Your task to perform on an android device: Go to CNN.com Image 0: 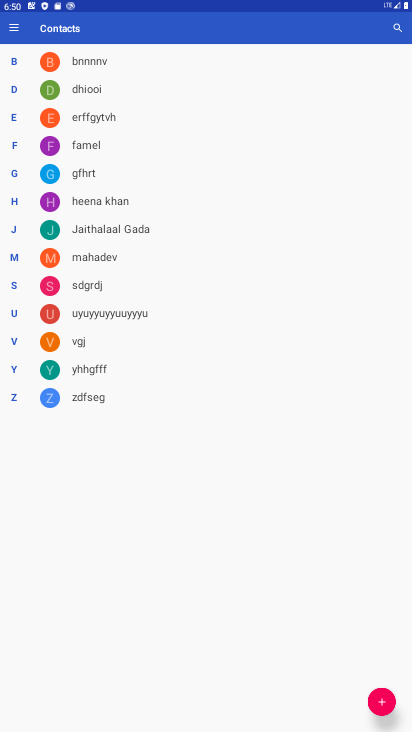
Step 0: press home button
Your task to perform on an android device: Go to CNN.com Image 1: 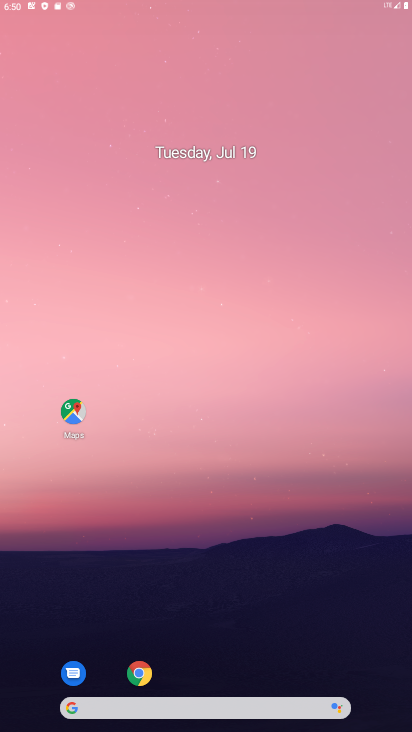
Step 1: drag from (381, 651) to (237, 8)
Your task to perform on an android device: Go to CNN.com Image 2: 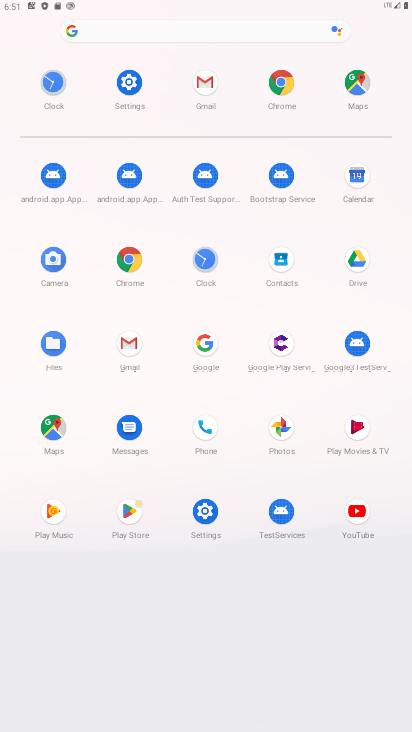
Step 2: click (199, 352)
Your task to perform on an android device: Go to CNN.com Image 3: 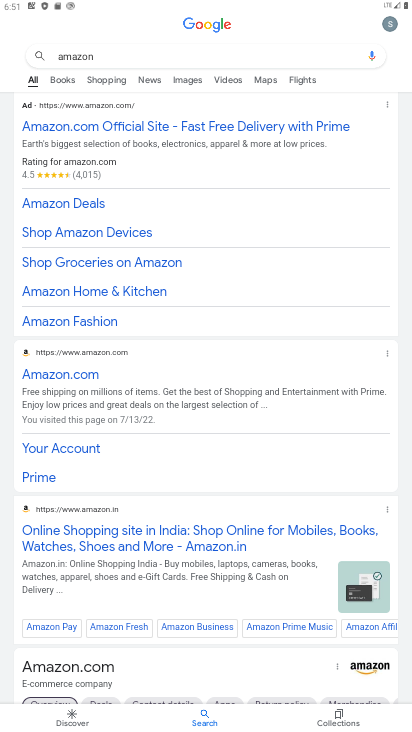
Step 3: press back button
Your task to perform on an android device: Go to CNN.com Image 4: 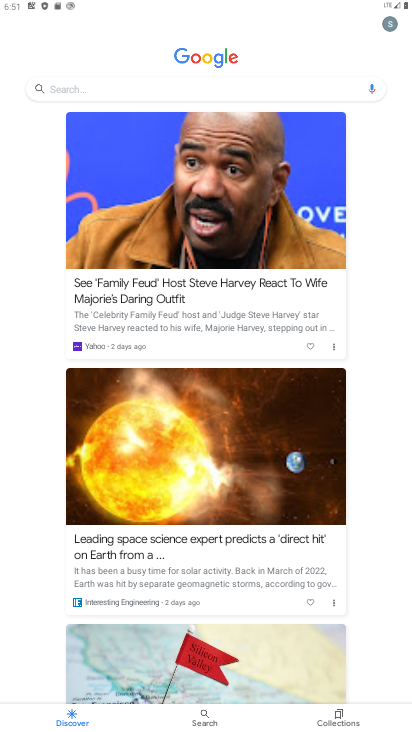
Step 4: click (103, 91)
Your task to perform on an android device: Go to CNN.com Image 5: 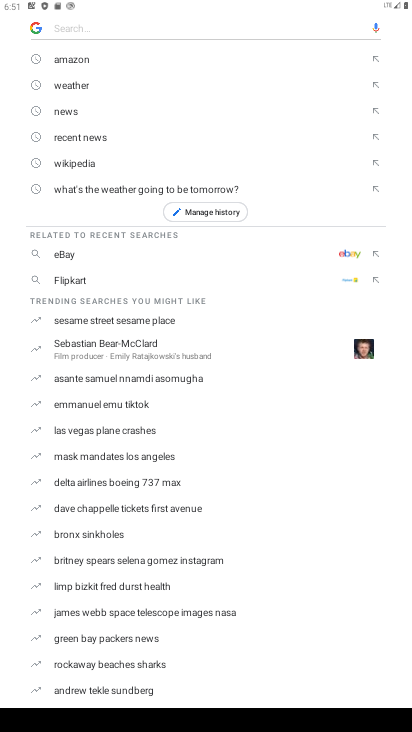
Step 5: type "CNN.com"
Your task to perform on an android device: Go to CNN.com Image 6: 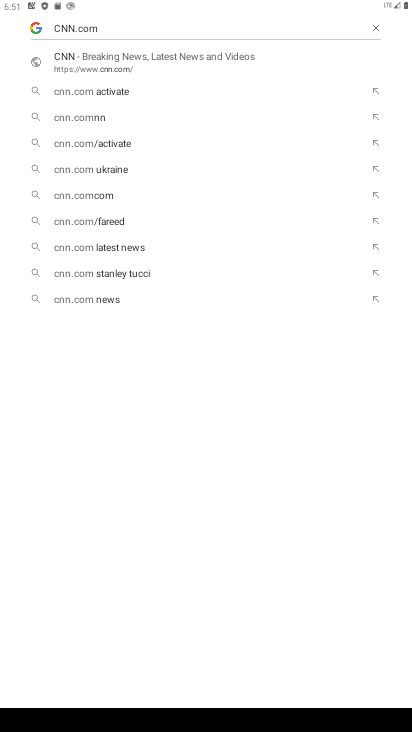
Step 6: click (99, 64)
Your task to perform on an android device: Go to CNN.com Image 7: 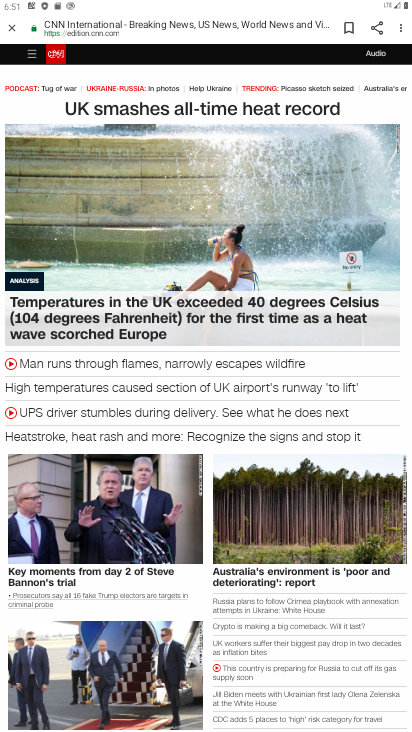
Step 7: task complete